Your task to perform on an android device: Open Google Chrome and open the bookmarks view Image 0: 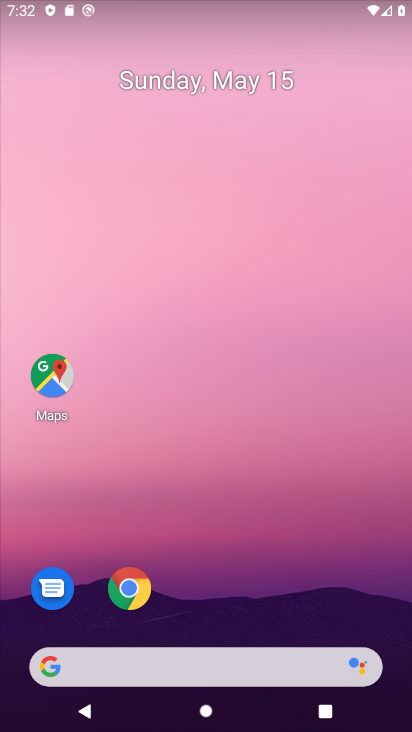
Step 0: click (126, 588)
Your task to perform on an android device: Open Google Chrome and open the bookmarks view Image 1: 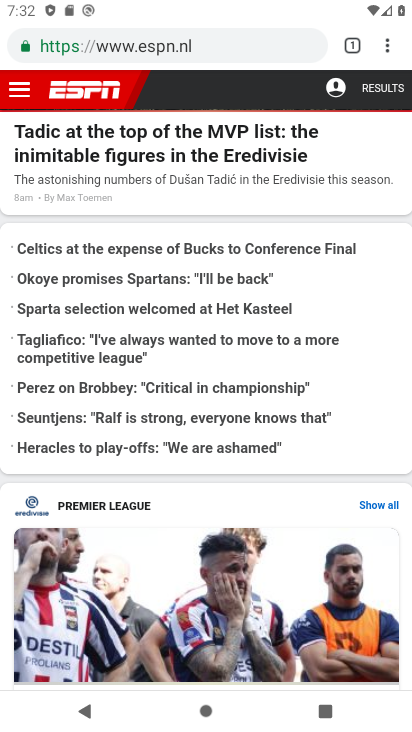
Step 1: click (385, 42)
Your task to perform on an android device: Open Google Chrome and open the bookmarks view Image 2: 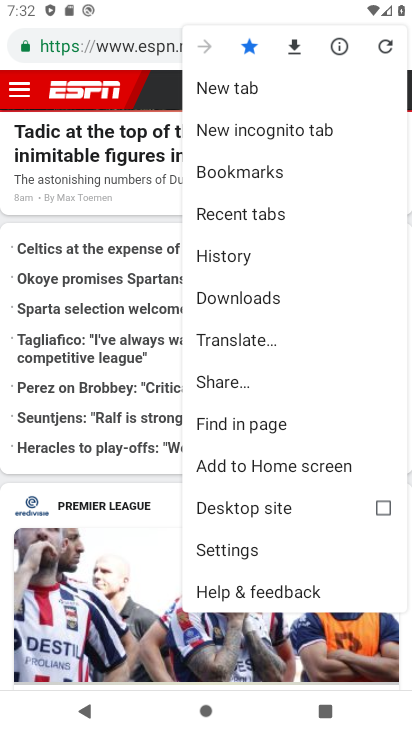
Step 2: click (260, 164)
Your task to perform on an android device: Open Google Chrome and open the bookmarks view Image 3: 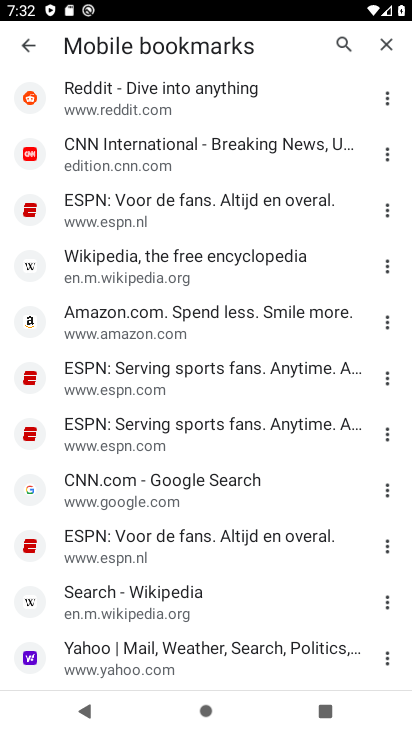
Step 3: task complete